Your task to perform on an android device: Open Chrome and go to the settings page Image 0: 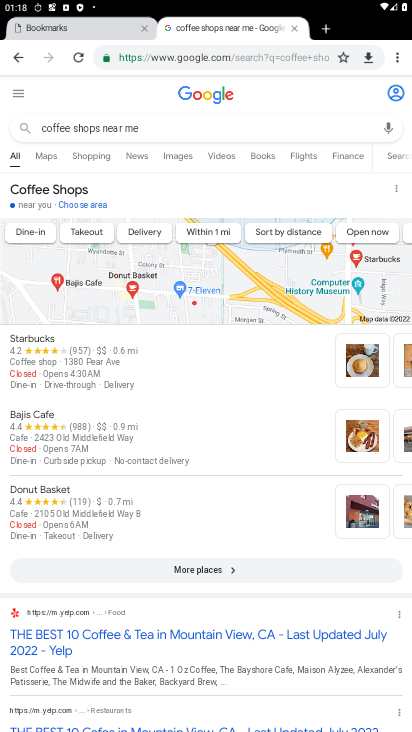
Step 0: press home button
Your task to perform on an android device: Open Chrome and go to the settings page Image 1: 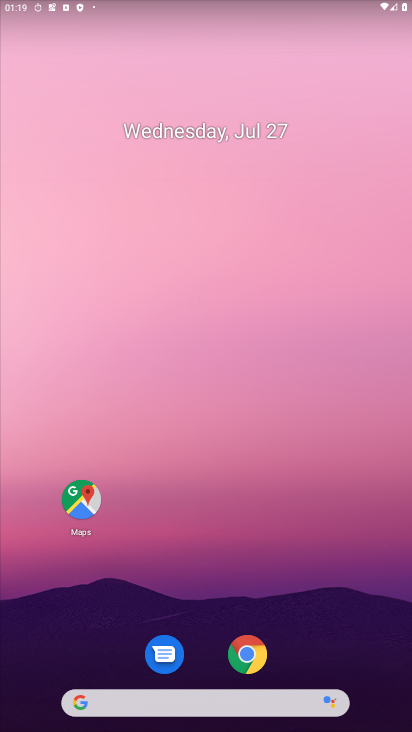
Step 1: drag from (280, 710) to (283, 62)
Your task to perform on an android device: Open Chrome and go to the settings page Image 2: 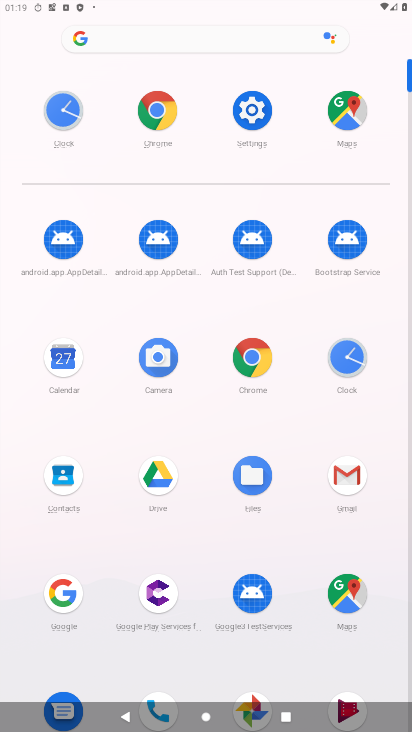
Step 2: click (246, 109)
Your task to perform on an android device: Open Chrome and go to the settings page Image 3: 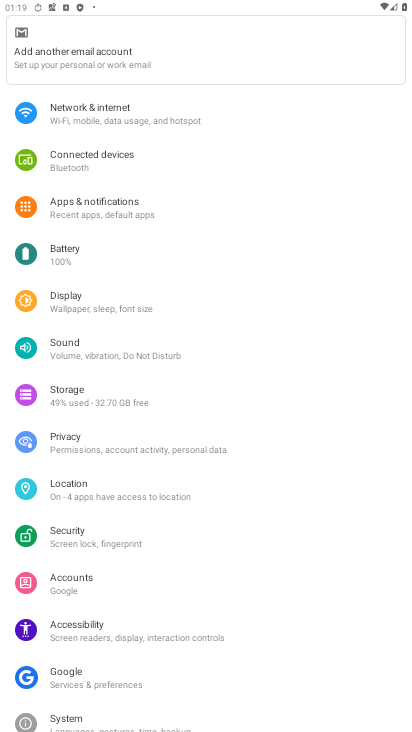
Step 3: press home button
Your task to perform on an android device: Open Chrome and go to the settings page Image 4: 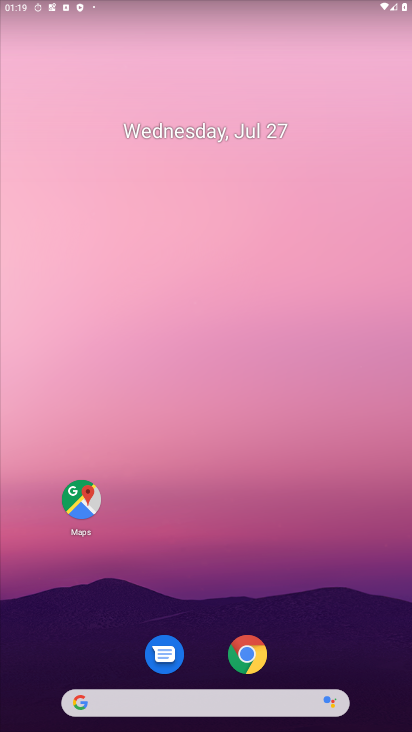
Step 4: drag from (204, 710) to (225, 80)
Your task to perform on an android device: Open Chrome and go to the settings page Image 5: 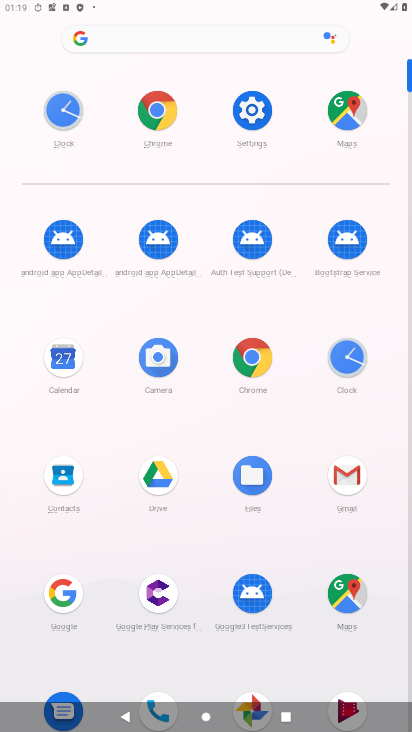
Step 5: click (254, 350)
Your task to perform on an android device: Open Chrome and go to the settings page Image 6: 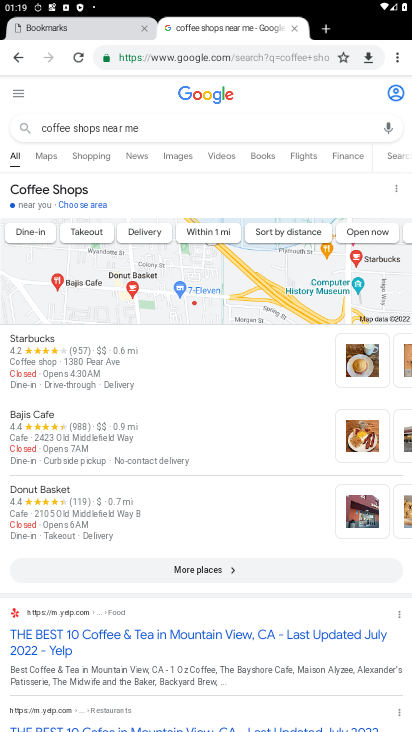
Step 6: click (387, 50)
Your task to perform on an android device: Open Chrome and go to the settings page Image 7: 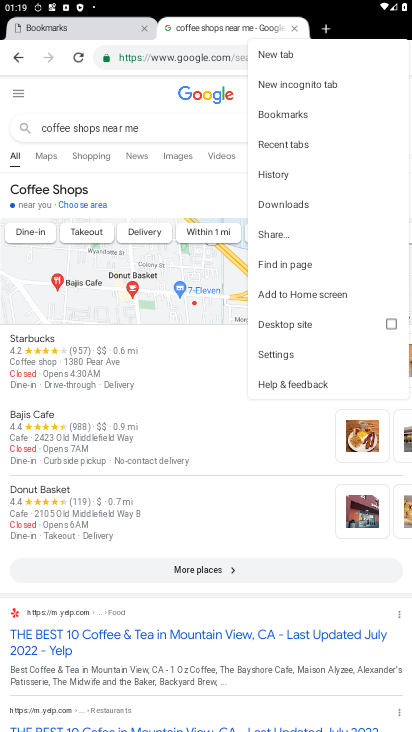
Step 7: click (306, 350)
Your task to perform on an android device: Open Chrome and go to the settings page Image 8: 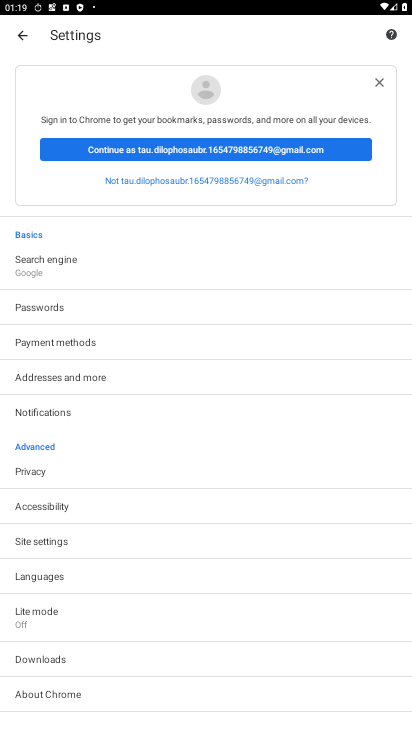
Step 8: task complete